Your task to perform on an android device: Go to notification settings Image 0: 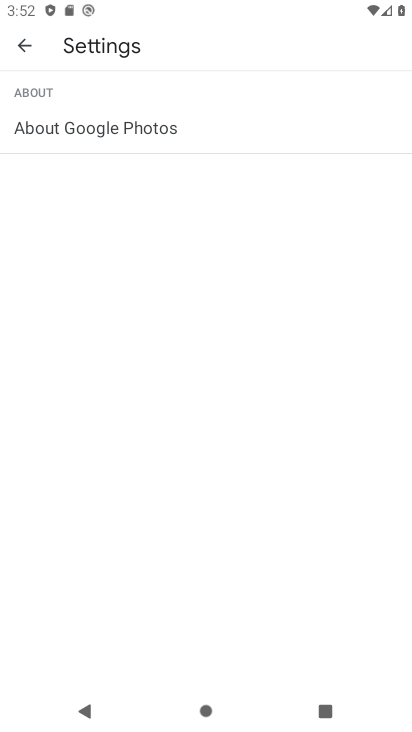
Step 0: drag from (198, 637) to (195, 197)
Your task to perform on an android device: Go to notification settings Image 1: 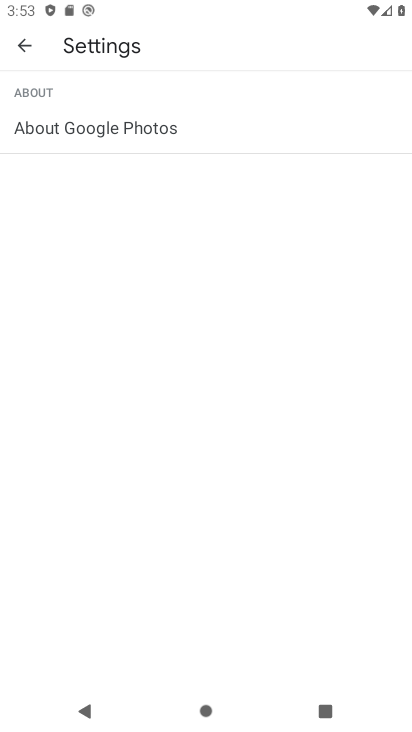
Step 1: press home button
Your task to perform on an android device: Go to notification settings Image 2: 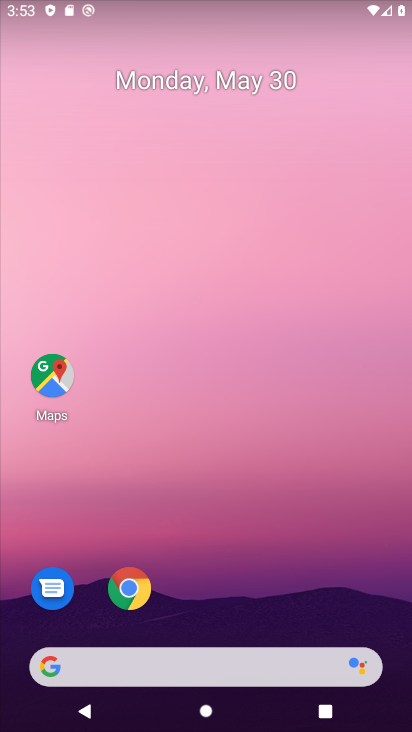
Step 2: drag from (228, 641) to (227, 251)
Your task to perform on an android device: Go to notification settings Image 3: 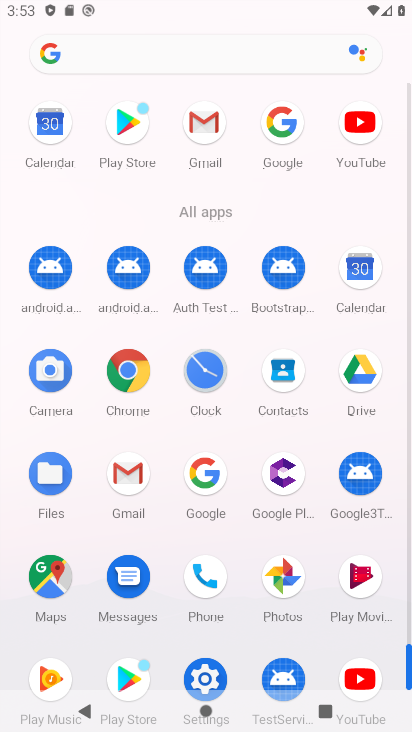
Step 3: click (207, 677)
Your task to perform on an android device: Go to notification settings Image 4: 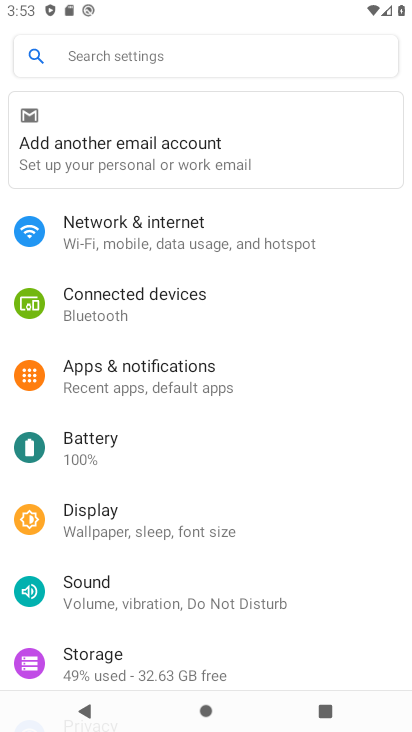
Step 4: click (136, 367)
Your task to perform on an android device: Go to notification settings Image 5: 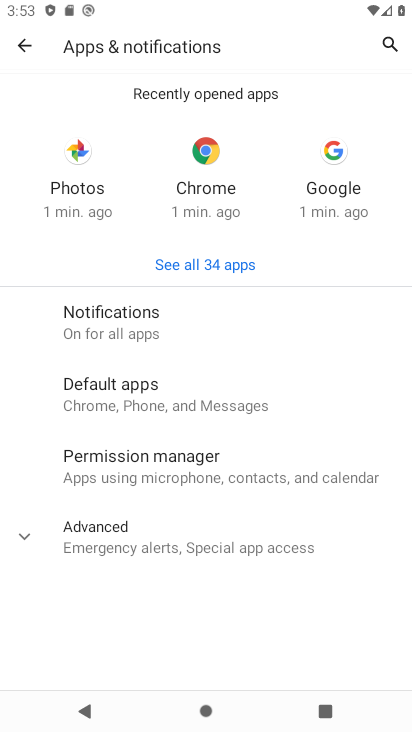
Step 5: click (145, 551)
Your task to perform on an android device: Go to notification settings Image 6: 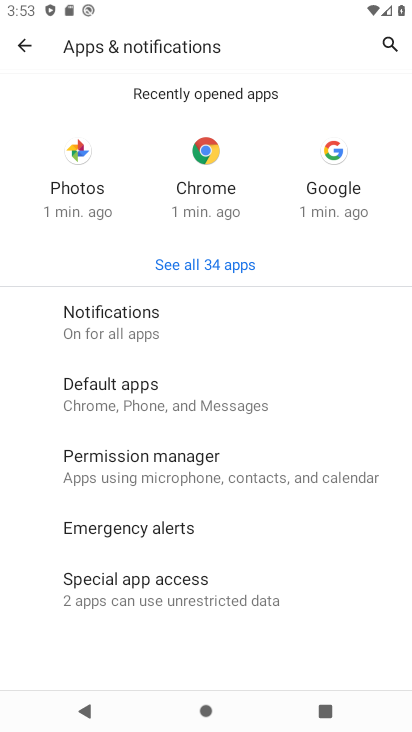
Step 6: task complete